Your task to perform on an android device: change timer sound Image 0: 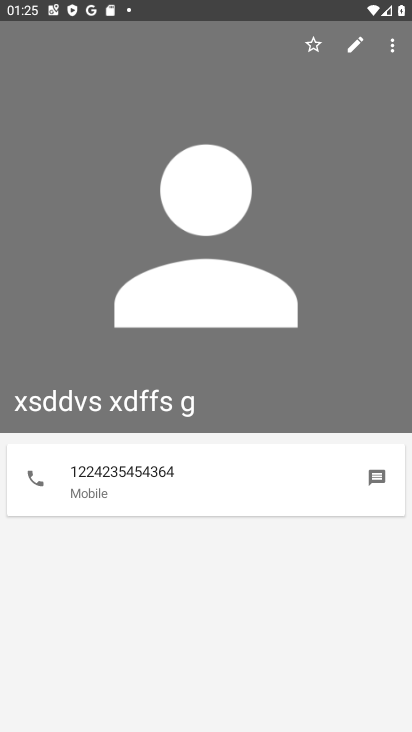
Step 0: press home button
Your task to perform on an android device: change timer sound Image 1: 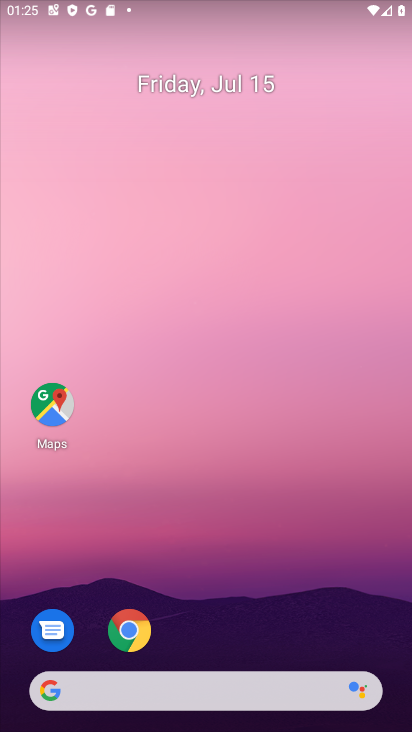
Step 1: drag from (245, 632) to (256, 163)
Your task to perform on an android device: change timer sound Image 2: 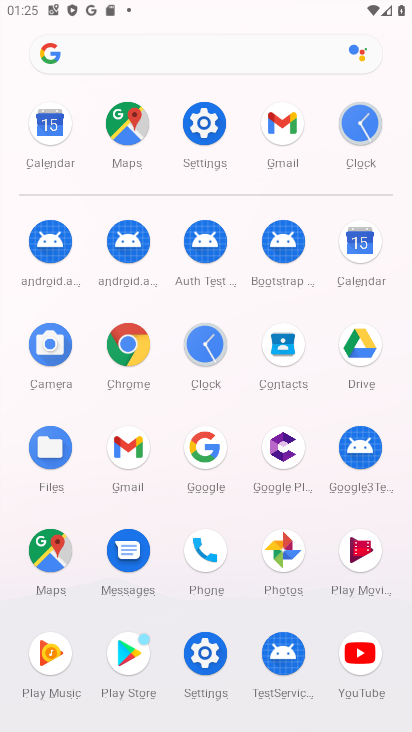
Step 2: click (339, 134)
Your task to perform on an android device: change timer sound Image 3: 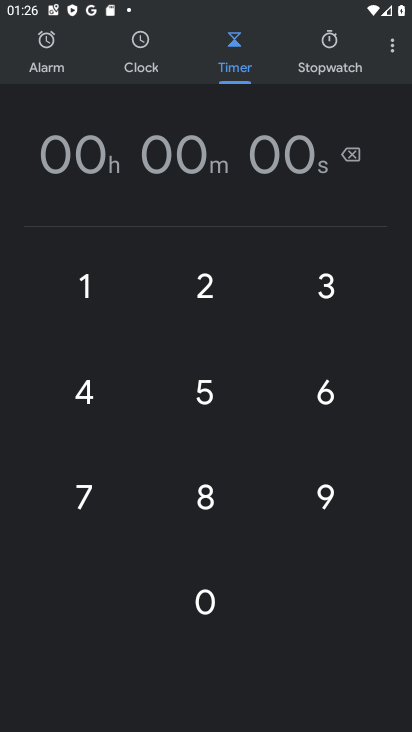
Step 3: click (398, 52)
Your task to perform on an android device: change timer sound Image 4: 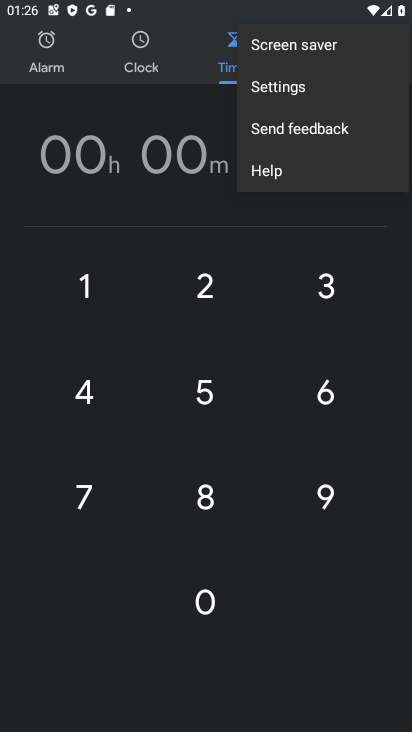
Step 4: click (302, 84)
Your task to perform on an android device: change timer sound Image 5: 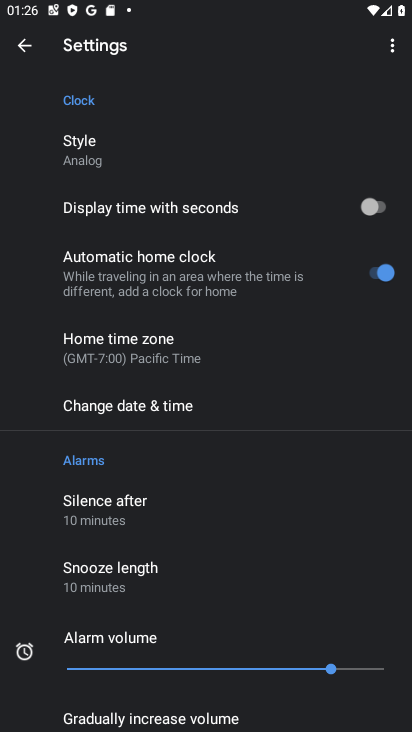
Step 5: drag from (128, 567) to (148, 277)
Your task to perform on an android device: change timer sound Image 6: 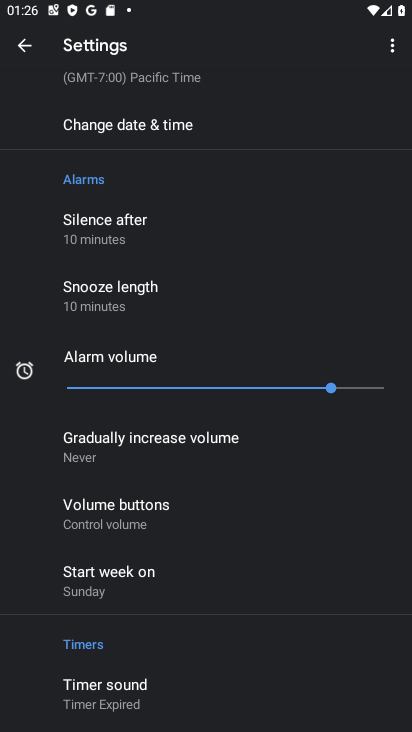
Step 6: click (125, 680)
Your task to perform on an android device: change timer sound Image 7: 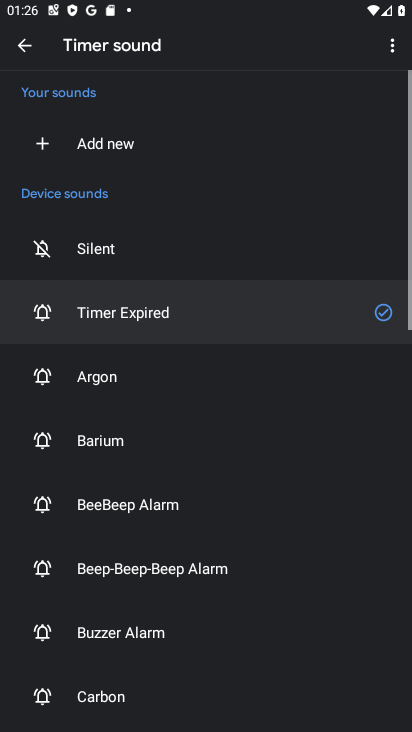
Step 7: click (171, 469)
Your task to perform on an android device: change timer sound Image 8: 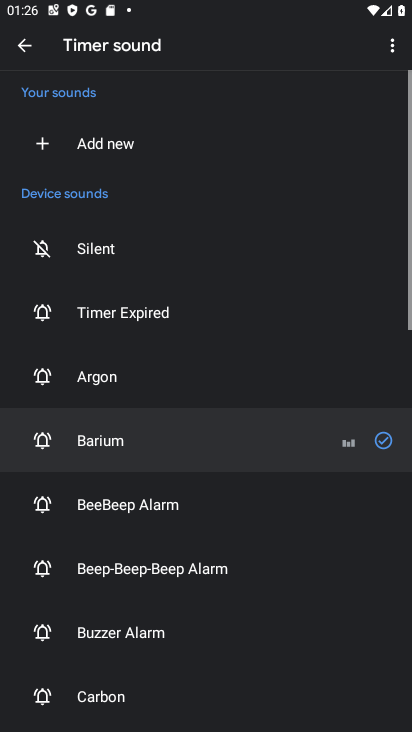
Step 8: task complete